Your task to perform on an android device: Open calendar and show me the first week of next month Image 0: 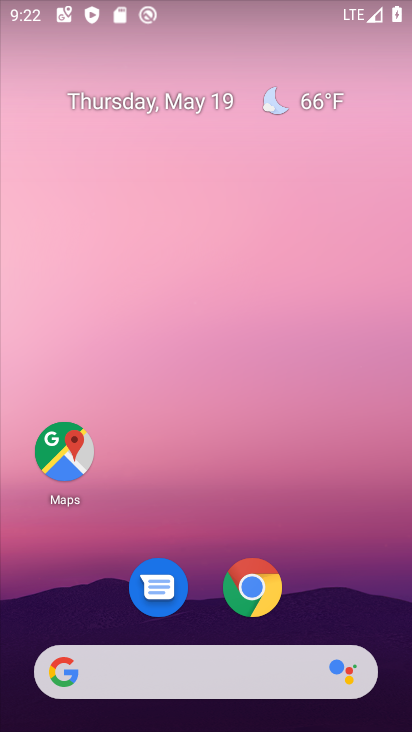
Step 0: press home button
Your task to perform on an android device: Open calendar and show me the first week of next month Image 1: 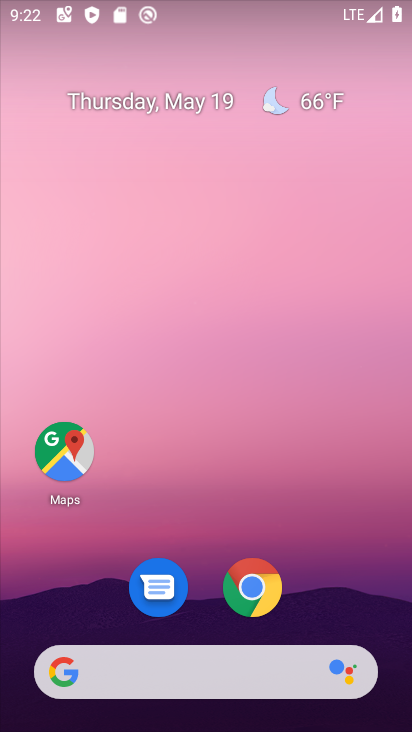
Step 1: drag from (291, 694) to (278, 168)
Your task to perform on an android device: Open calendar and show me the first week of next month Image 2: 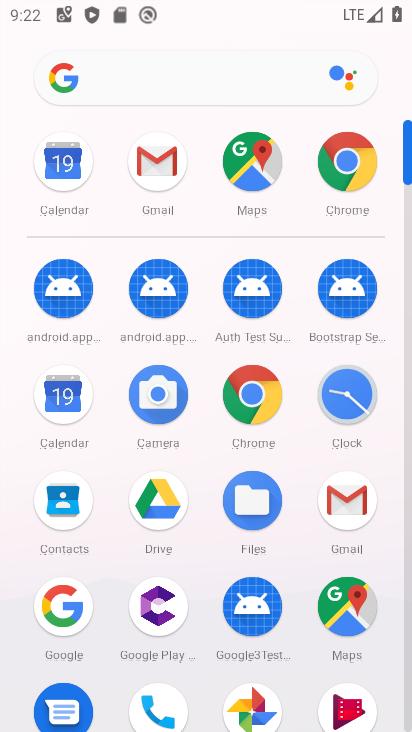
Step 2: click (78, 165)
Your task to perform on an android device: Open calendar and show me the first week of next month Image 3: 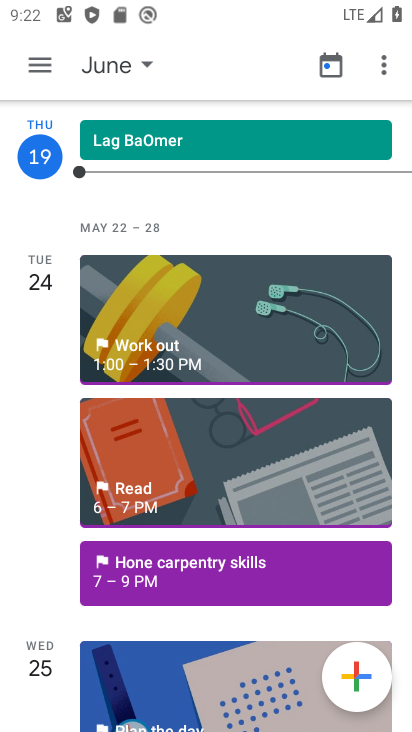
Step 3: click (31, 64)
Your task to perform on an android device: Open calendar and show me the first week of next month Image 4: 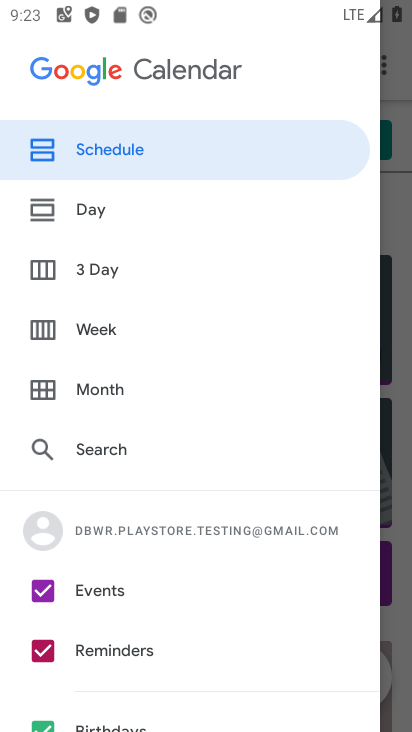
Step 4: click (94, 386)
Your task to perform on an android device: Open calendar and show me the first week of next month Image 5: 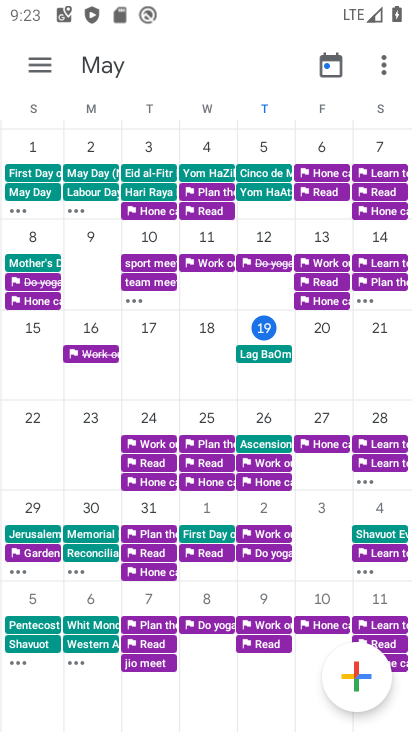
Step 5: drag from (357, 433) to (9, 356)
Your task to perform on an android device: Open calendar and show me the first week of next month Image 6: 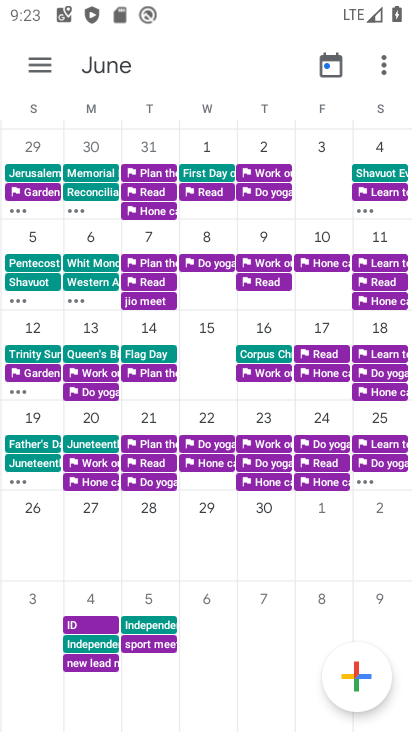
Step 6: click (218, 172)
Your task to perform on an android device: Open calendar and show me the first week of next month Image 7: 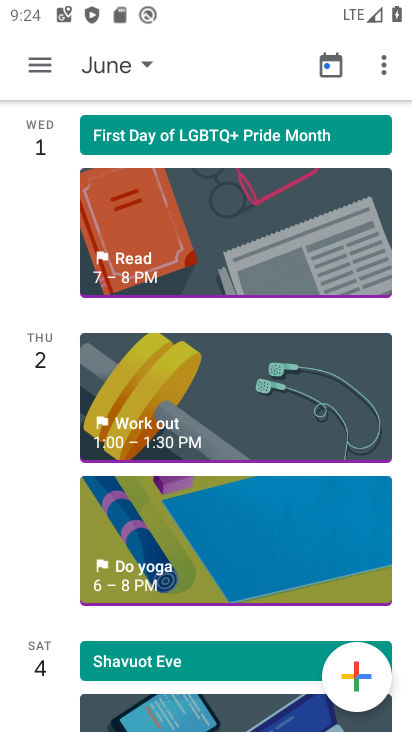
Step 7: task complete